Your task to perform on an android device: change alarm snooze length Image 0: 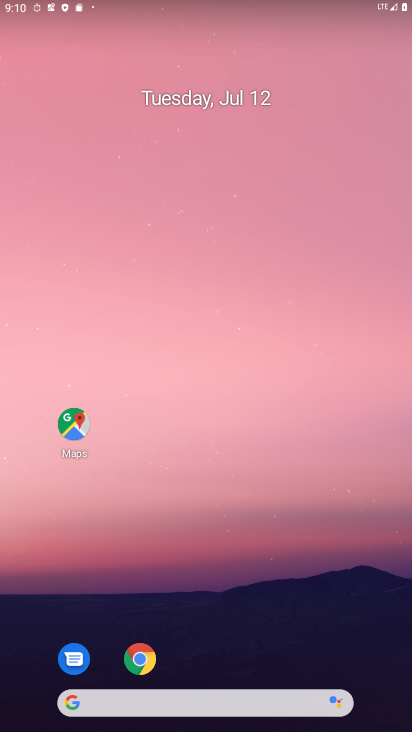
Step 0: drag from (364, 684) to (174, 49)
Your task to perform on an android device: change alarm snooze length Image 1: 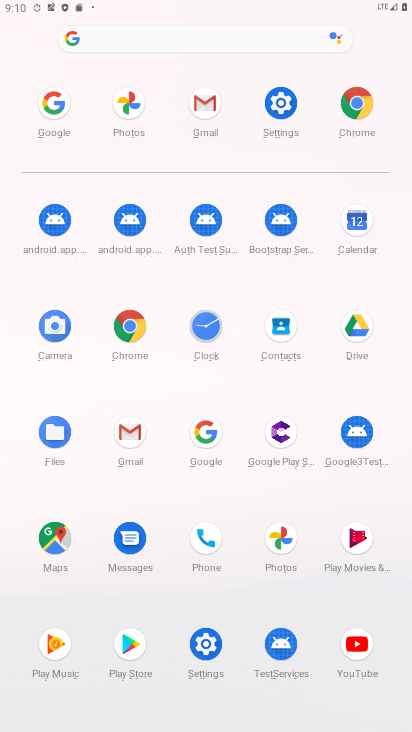
Step 1: click (208, 331)
Your task to perform on an android device: change alarm snooze length Image 2: 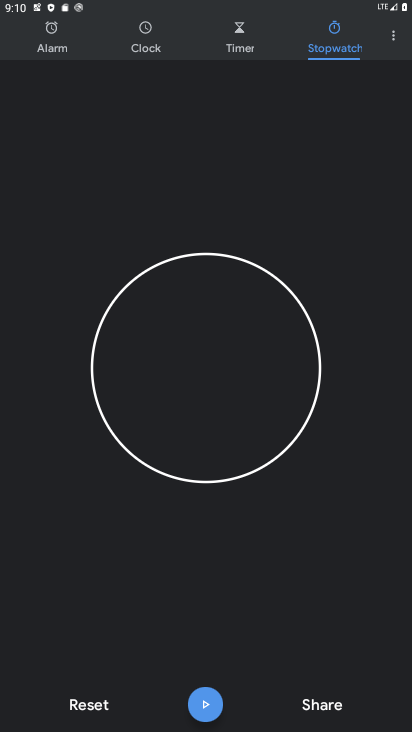
Step 2: click (397, 32)
Your task to perform on an android device: change alarm snooze length Image 3: 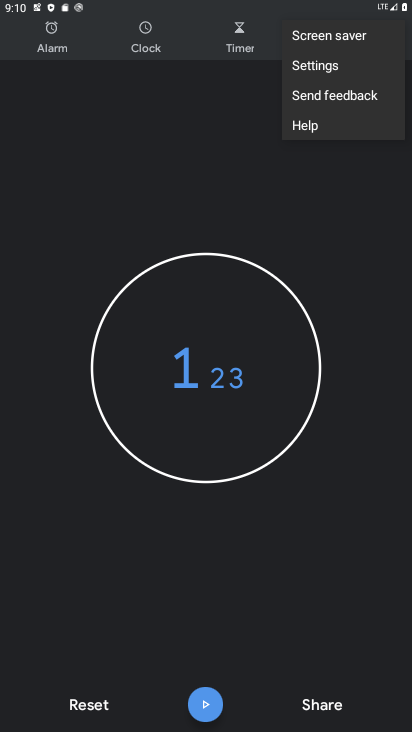
Step 3: click (305, 71)
Your task to perform on an android device: change alarm snooze length Image 4: 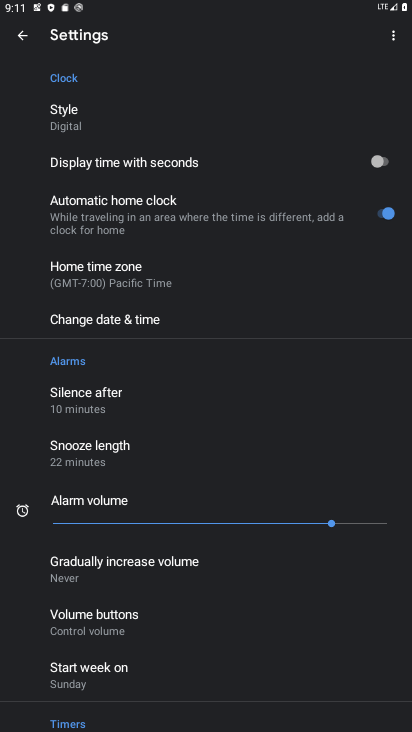
Step 4: drag from (153, 673) to (148, 278)
Your task to perform on an android device: change alarm snooze length Image 5: 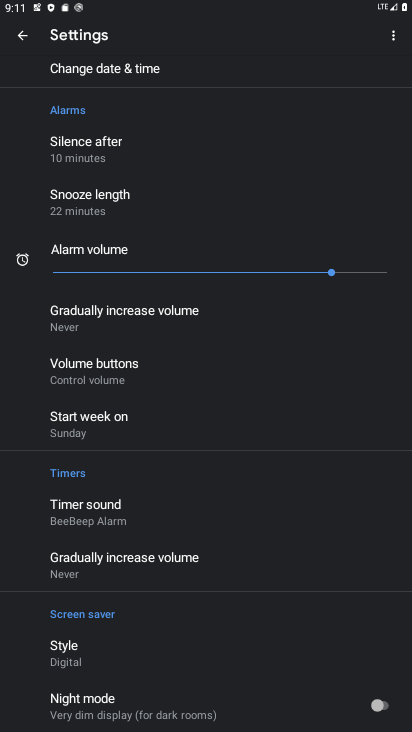
Step 5: drag from (126, 81) to (143, 425)
Your task to perform on an android device: change alarm snooze length Image 6: 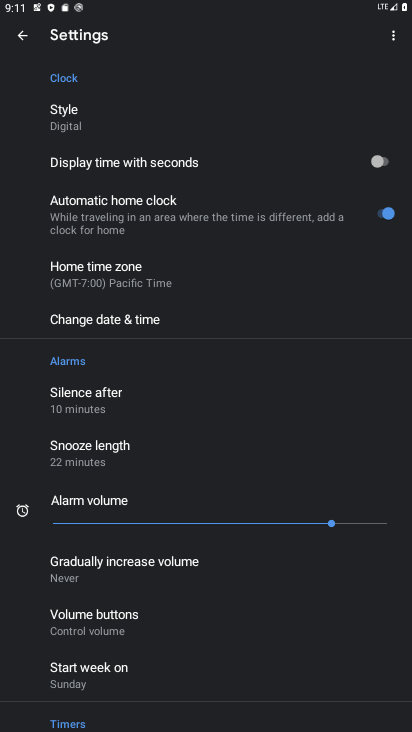
Step 6: click (157, 456)
Your task to perform on an android device: change alarm snooze length Image 7: 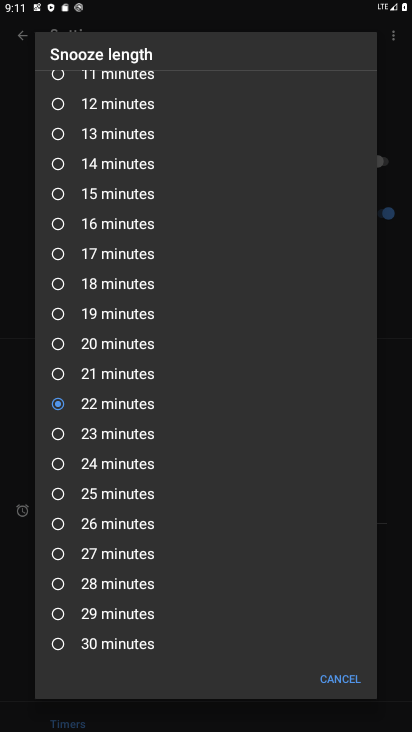
Step 7: click (76, 367)
Your task to perform on an android device: change alarm snooze length Image 8: 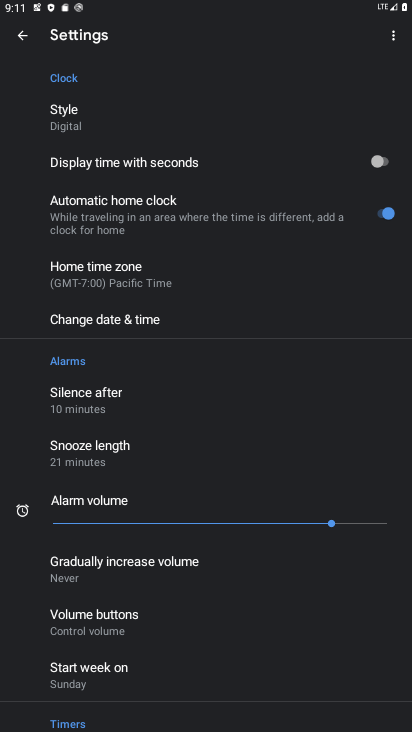
Step 8: task complete